Your task to perform on an android device: Open Wikipedia Image 0: 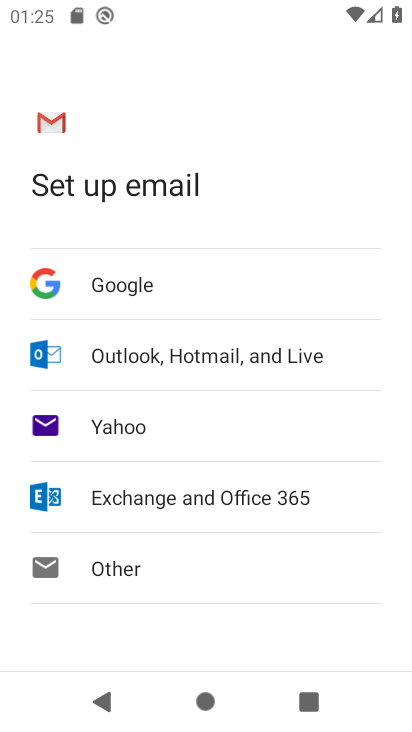
Step 0: press home button
Your task to perform on an android device: Open Wikipedia Image 1: 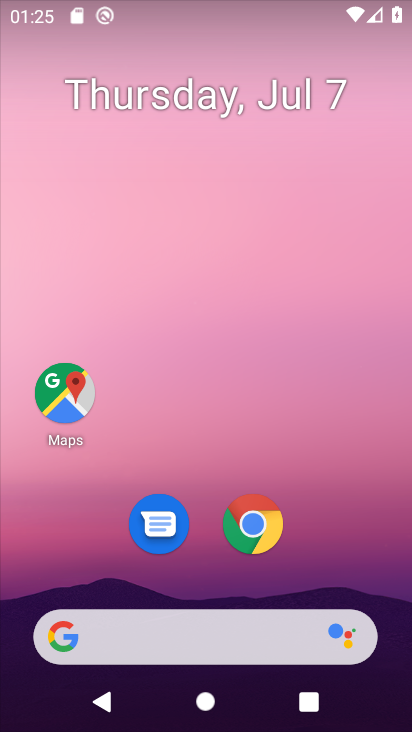
Step 1: click (258, 536)
Your task to perform on an android device: Open Wikipedia Image 2: 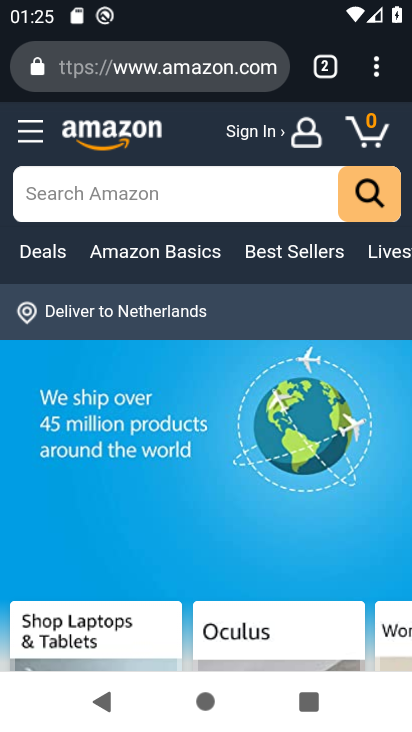
Step 2: click (380, 67)
Your task to perform on an android device: Open Wikipedia Image 3: 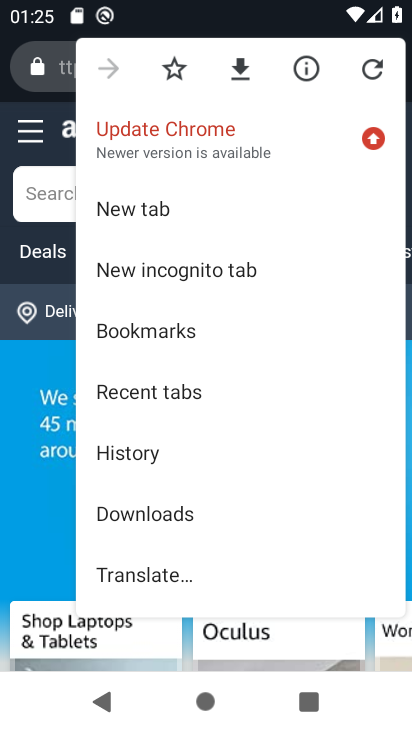
Step 3: click (165, 213)
Your task to perform on an android device: Open Wikipedia Image 4: 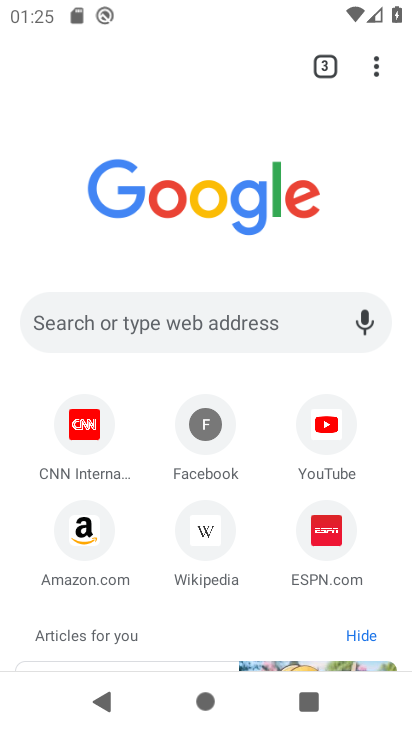
Step 4: click (202, 524)
Your task to perform on an android device: Open Wikipedia Image 5: 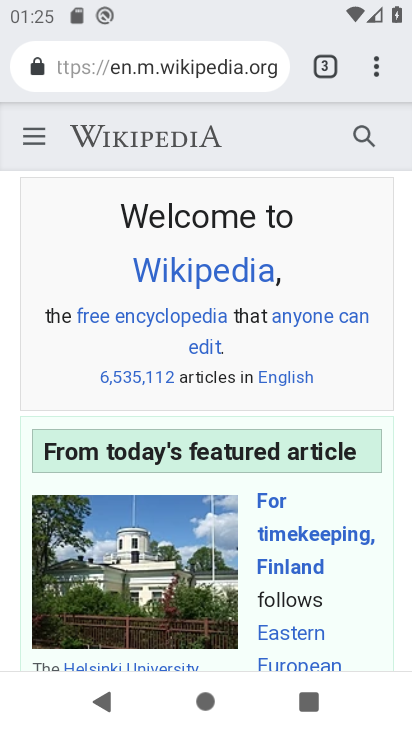
Step 5: task complete